Your task to perform on an android device: Search for sushi restaurants on Maps Image 0: 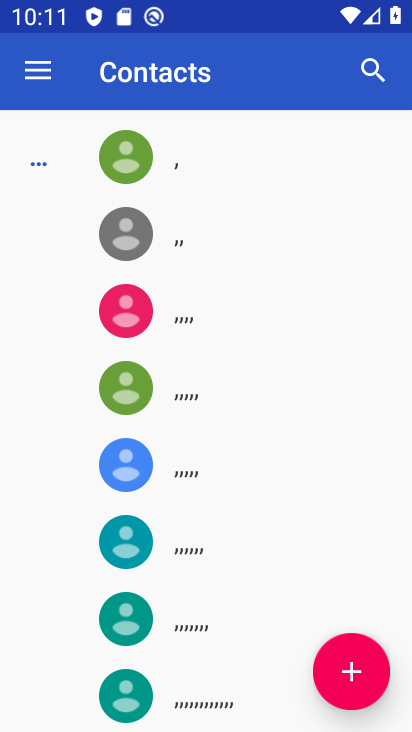
Step 0: click (403, 661)
Your task to perform on an android device: Search for sushi restaurants on Maps Image 1: 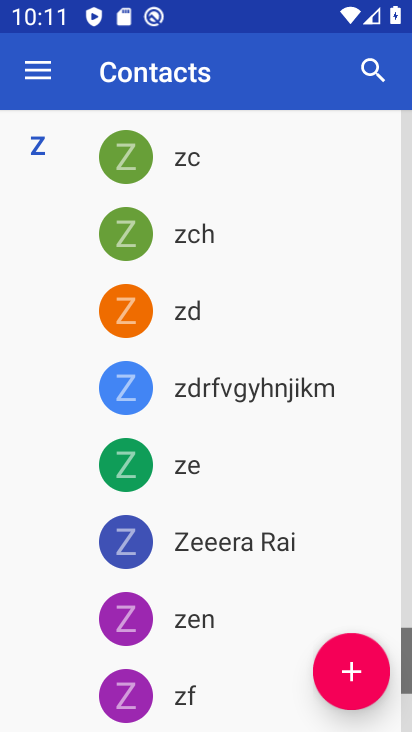
Step 1: press home button
Your task to perform on an android device: Search for sushi restaurants on Maps Image 2: 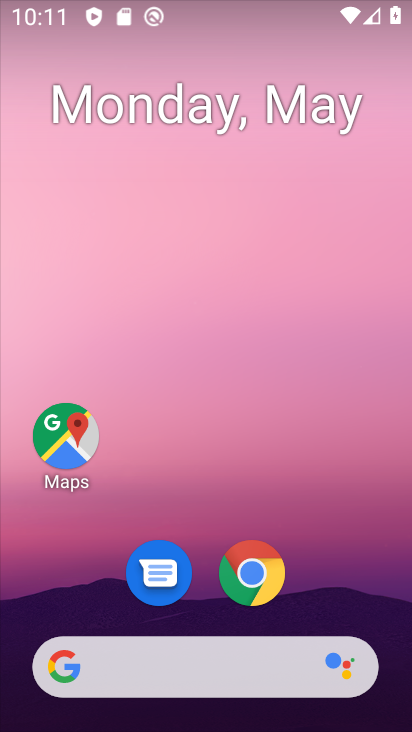
Step 2: click (64, 444)
Your task to perform on an android device: Search for sushi restaurants on Maps Image 3: 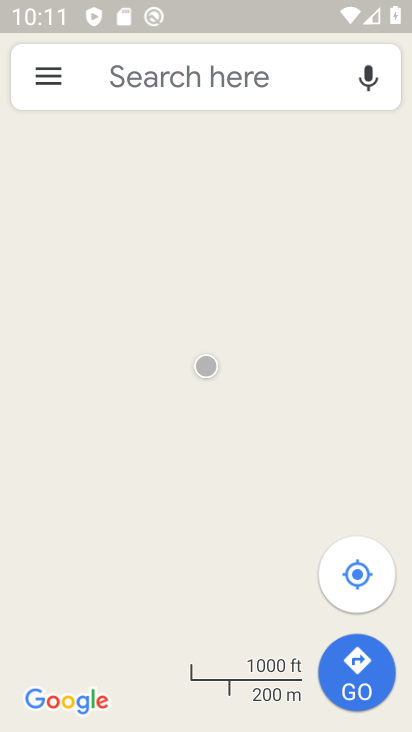
Step 3: click (171, 68)
Your task to perform on an android device: Search for sushi restaurants on Maps Image 4: 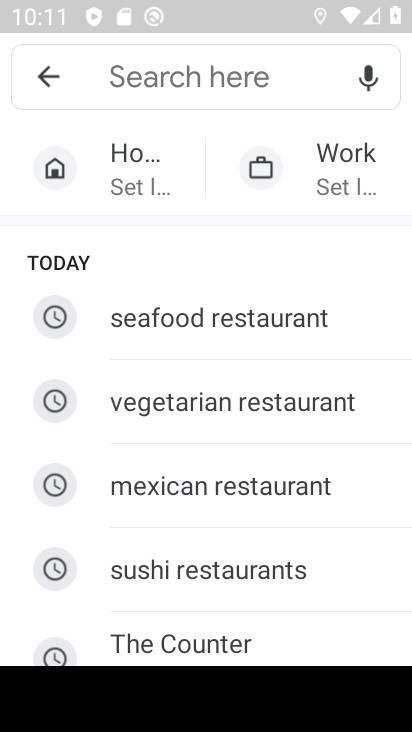
Step 4: click (223, 574)
Your task to perform on an android device: Search for sushi restaurants on Maps Image 5: 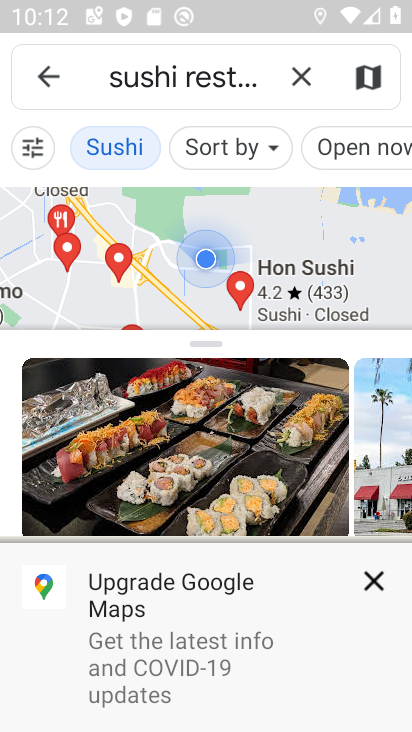
Step 5: task complete